Your task to perform on an android device: Open eBay Image 0: 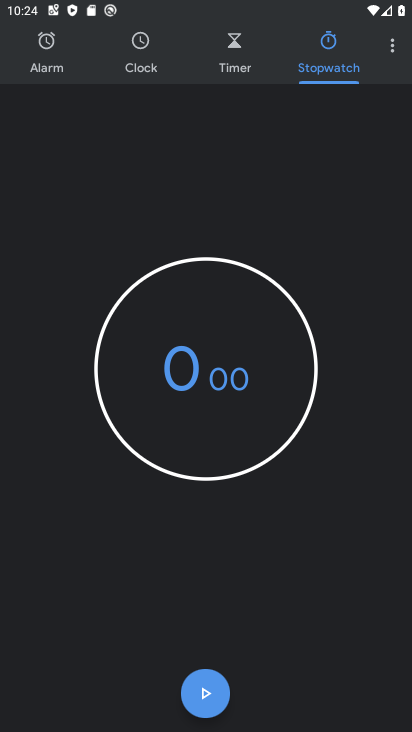
Step 0: press home button
Your task to perform on an android device: Open eBay Image 1: 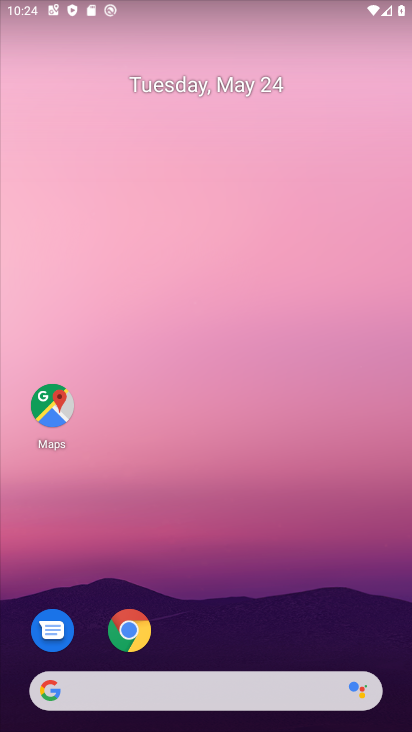
Step 1: click (126, 622)
Your task to perform on an android device: Open eBay Image 2: 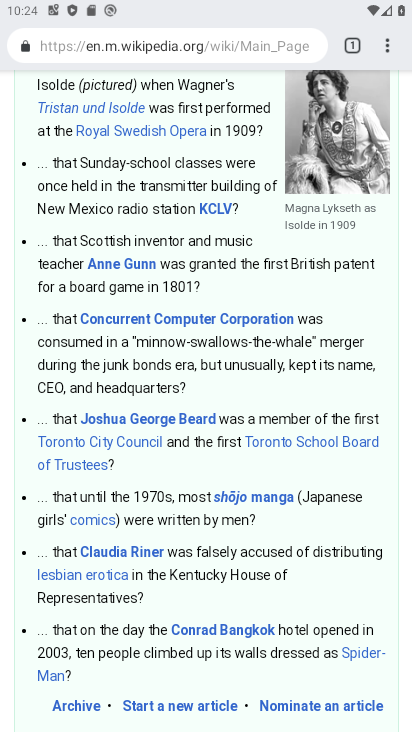
Step 2: click (353, 44)
Your task to perform on an android device: Open eBay Image 3: 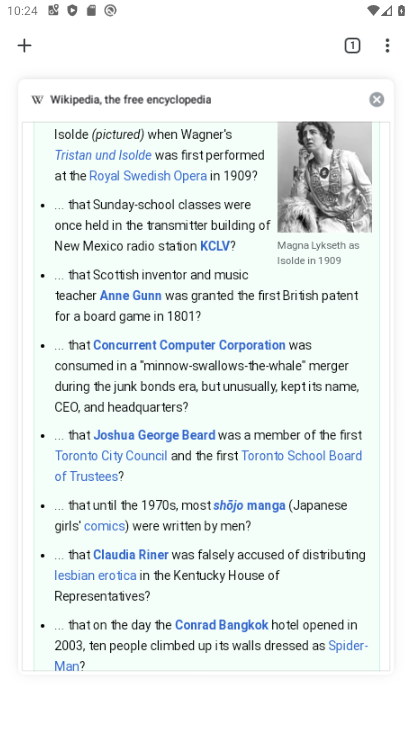
Step 3: click (374, 92)
Your task to perform on an android device: Open eBay Image 4: 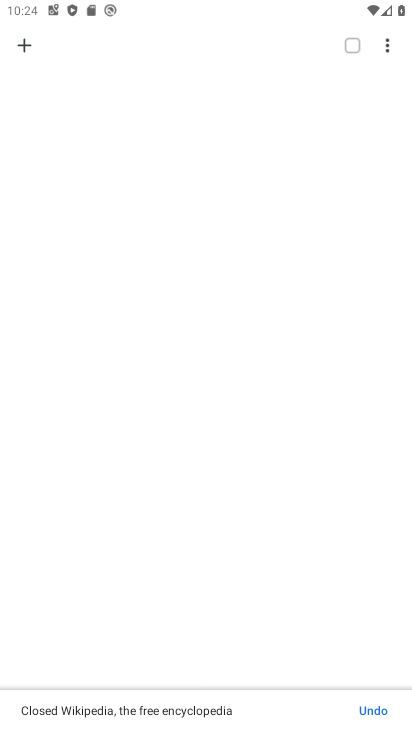
Step 4: click (26, 43)
Your task to perform on an android device: Open eBay Image 5: 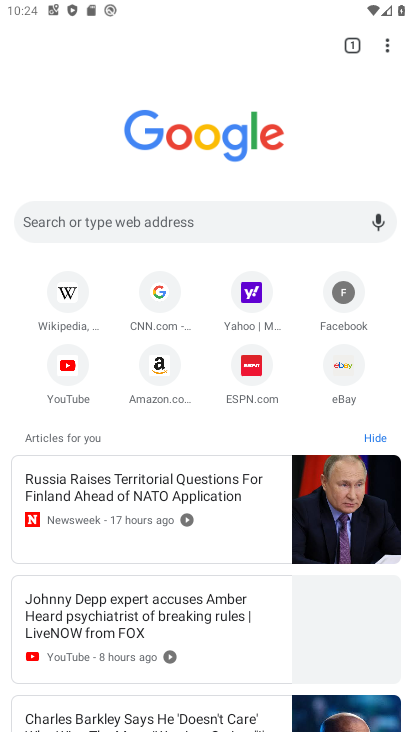
Step 5: click (343, 360)
Your task to perform on an android device: Open eBay Image 6: 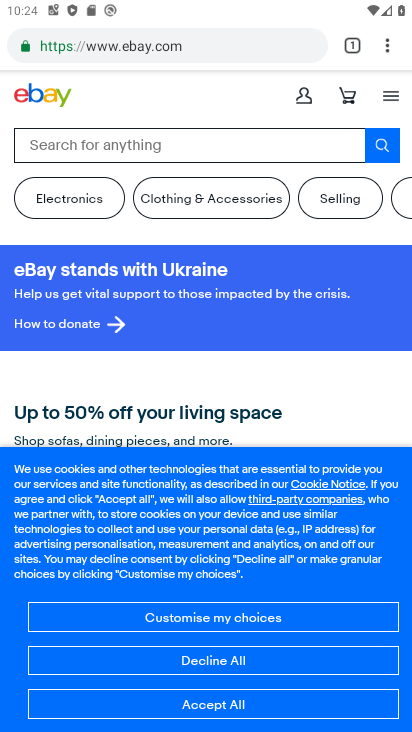
Step 6: click (211, 705)
Your task to perform on an android device: Open eBay Image 7: 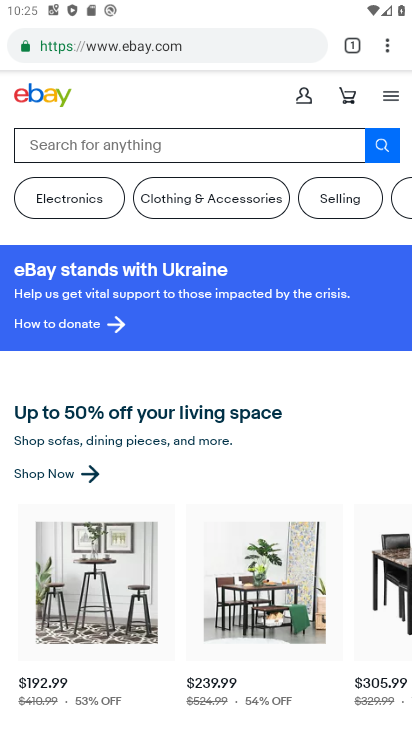
Step 7: task complete